Your task to perform on an android device: install app "Duolingo: language lessons" Image 0: 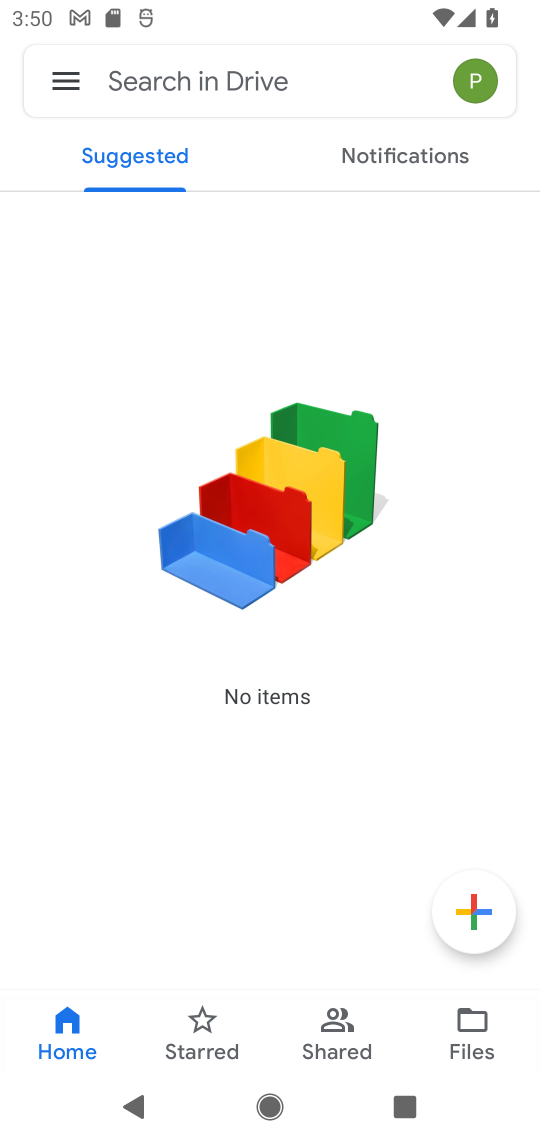
Step 0: press home button
Your task to perform on an android device: install app "Duolingo: language lessons" Image 1: 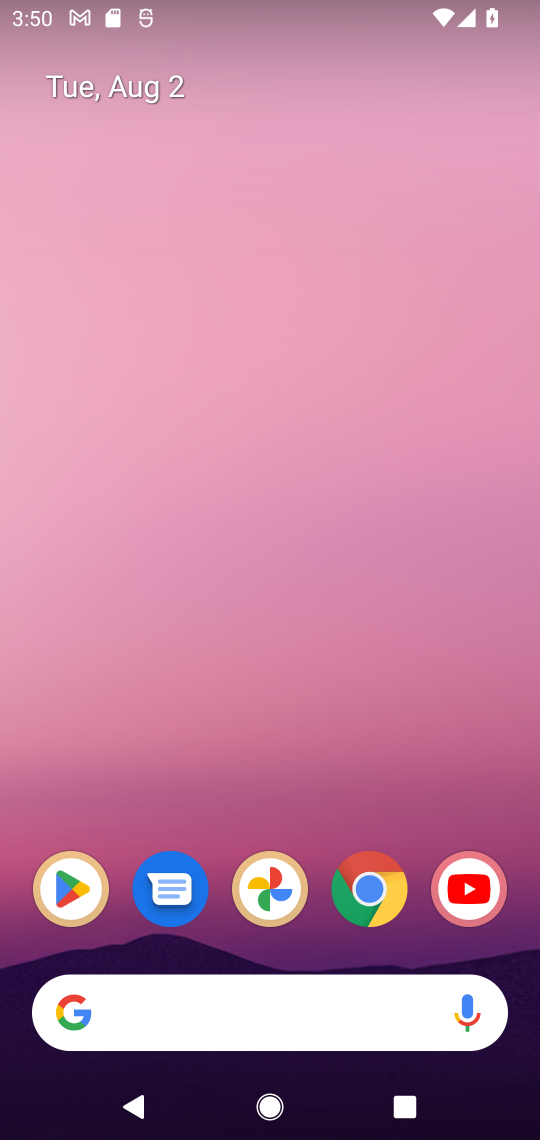
Step 1: drag from (403, 804) to (407, 73)
Your task to perform on an android device: install app "Duolingo: language lessons" Image 2: 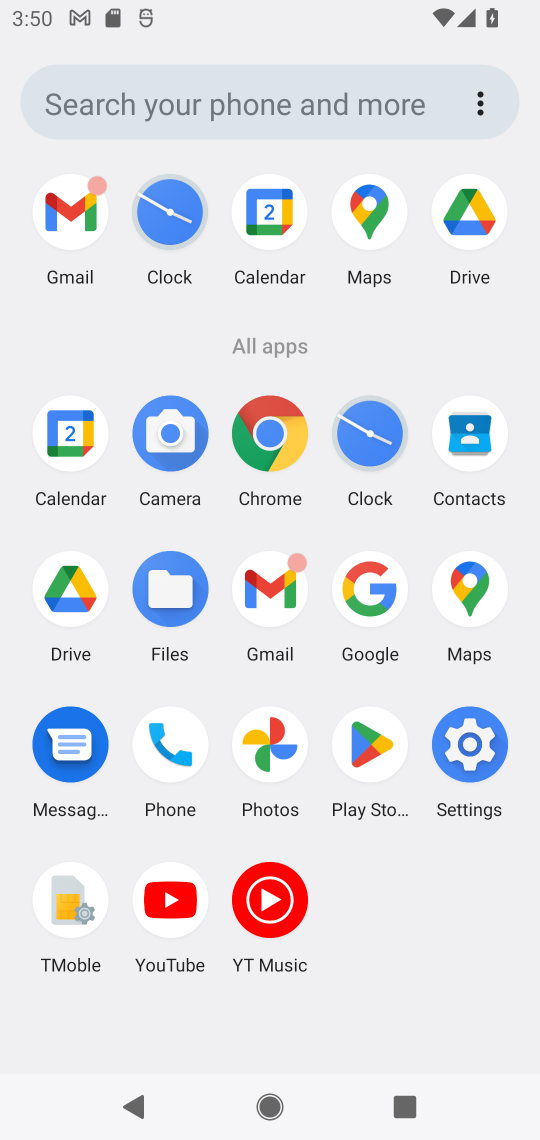
Step 2: click (357, 745)
Your task to perform on an android device: install app "Duolingo: language lessons" Image 3: 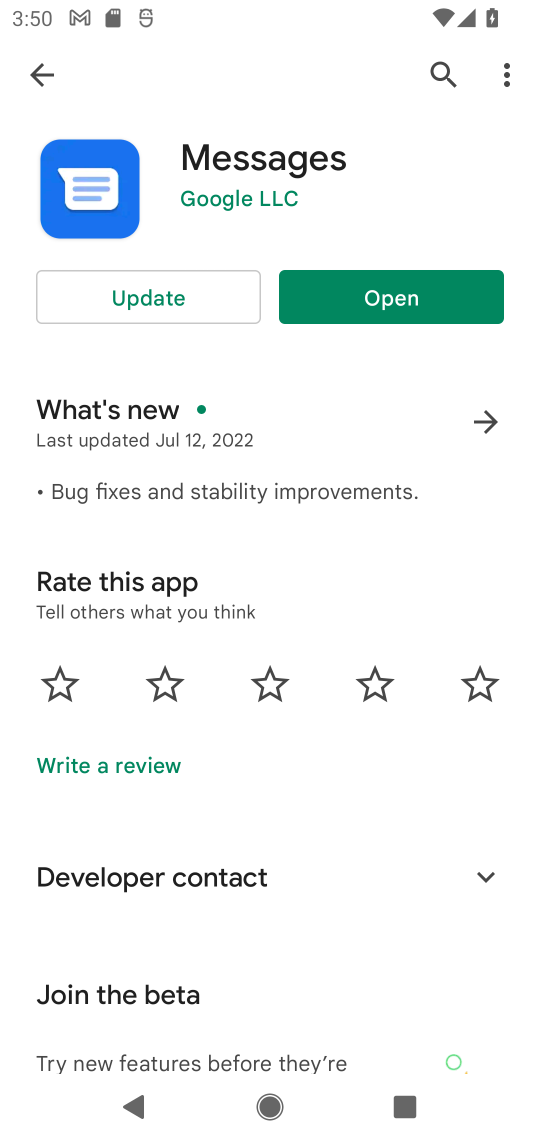
Step 3: click (440, 67)
Your task to perform on an android device: install app "Duolingo: language lessons" Image 4: 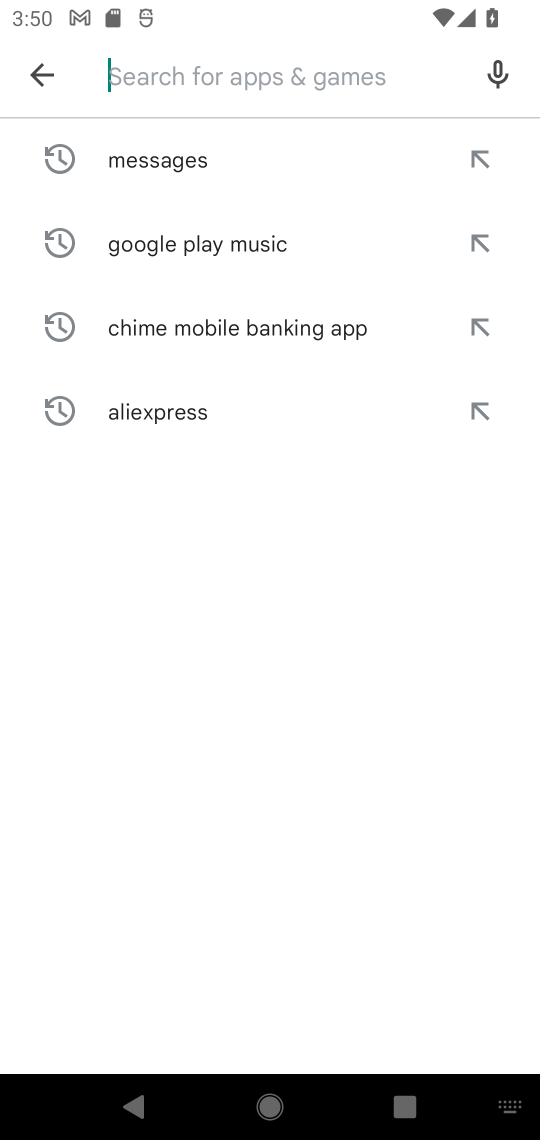
Step 4: press enter
Your task to perform on an android device: install app "Duolingo: language lessons" Image 5: 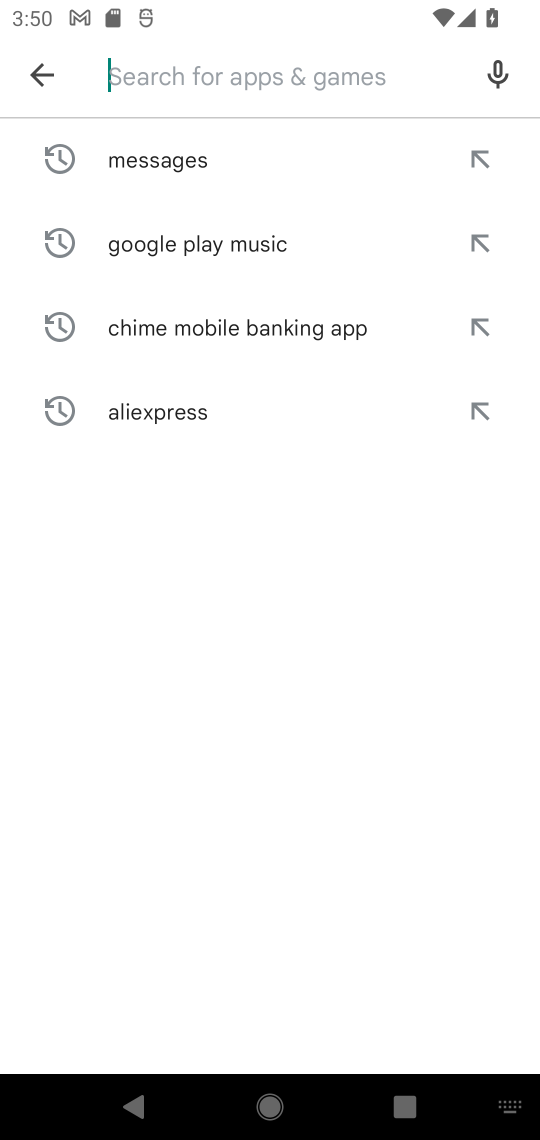
Step 5: type "Duolingo: language lessons"
Your task to perform on an android device: install app "Duolingo: language lessons" Image 6: 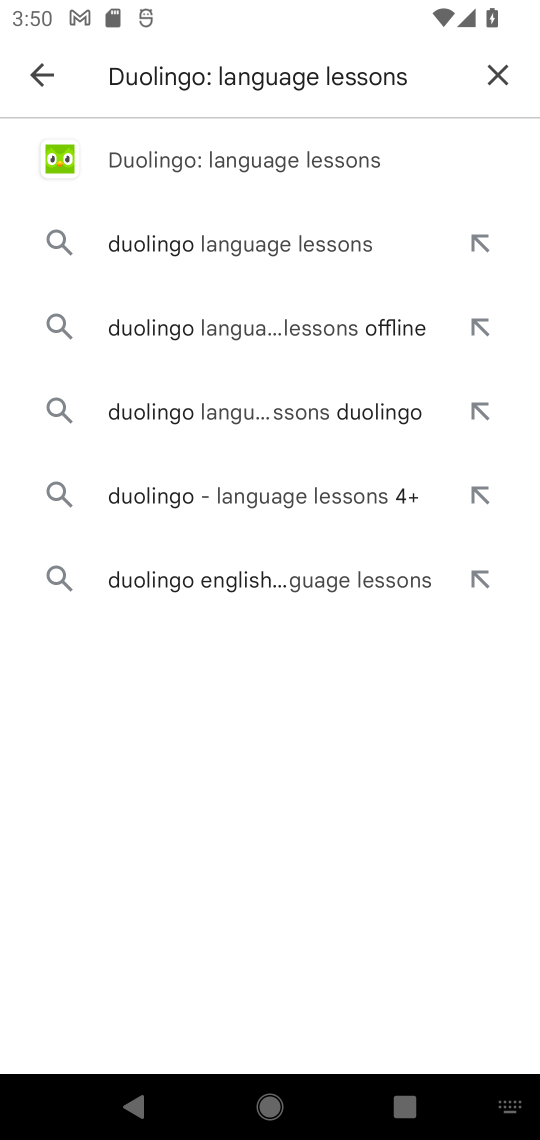
Step 6: click (306, 163)
Your task to perform on an android device: install app "Duolingo: language lessons" Image 7: 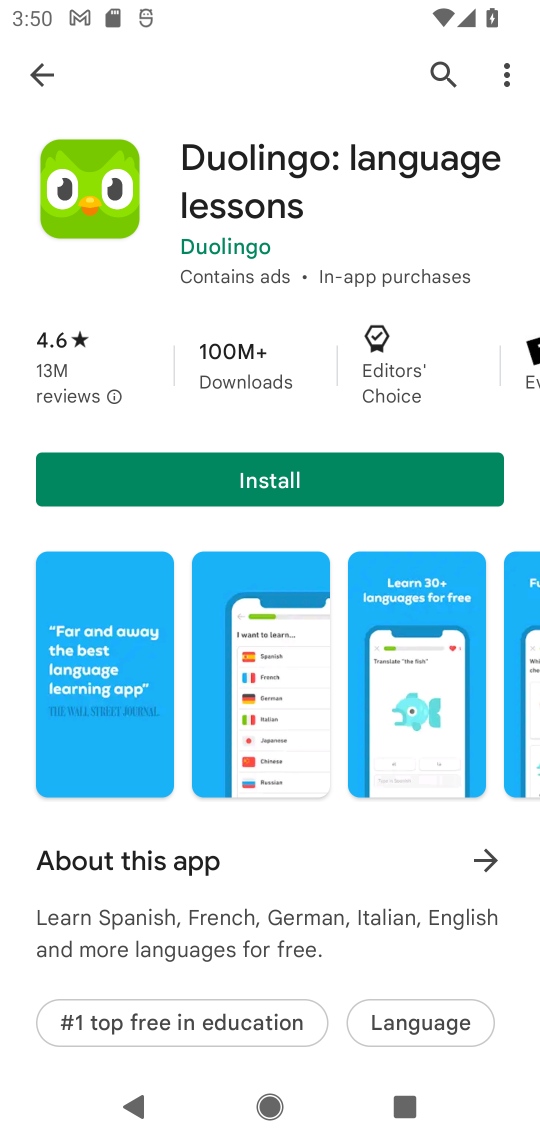
Step 7: click (326, 472)
Your task to perform on an android device: install app "Duolingo: language lessons" Image 8: 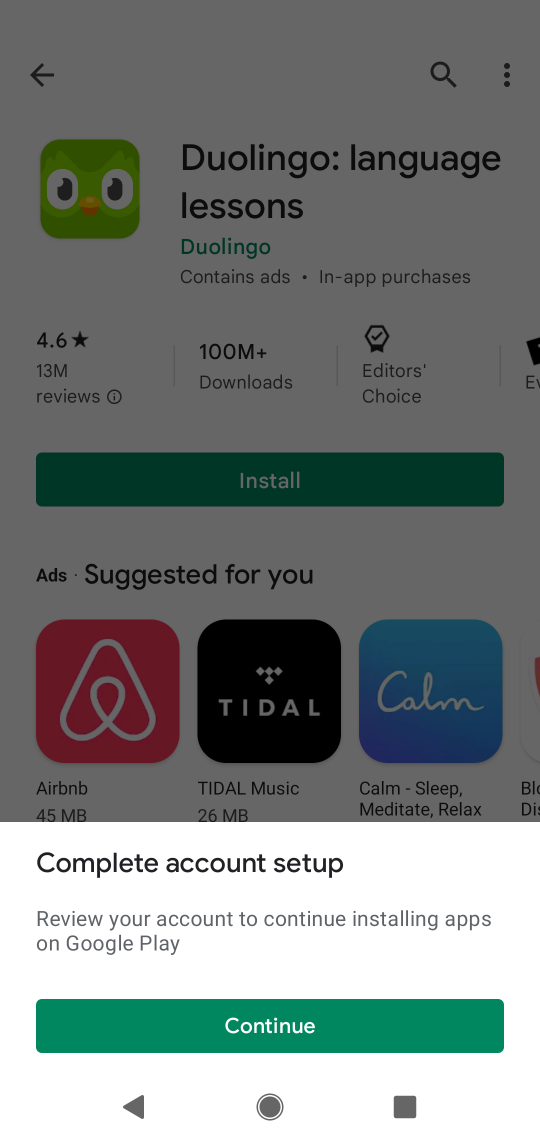
Step 8: click (339, 1028)
Your task to perform on an android device: install app "Duolingo: language lessons" Image 9: 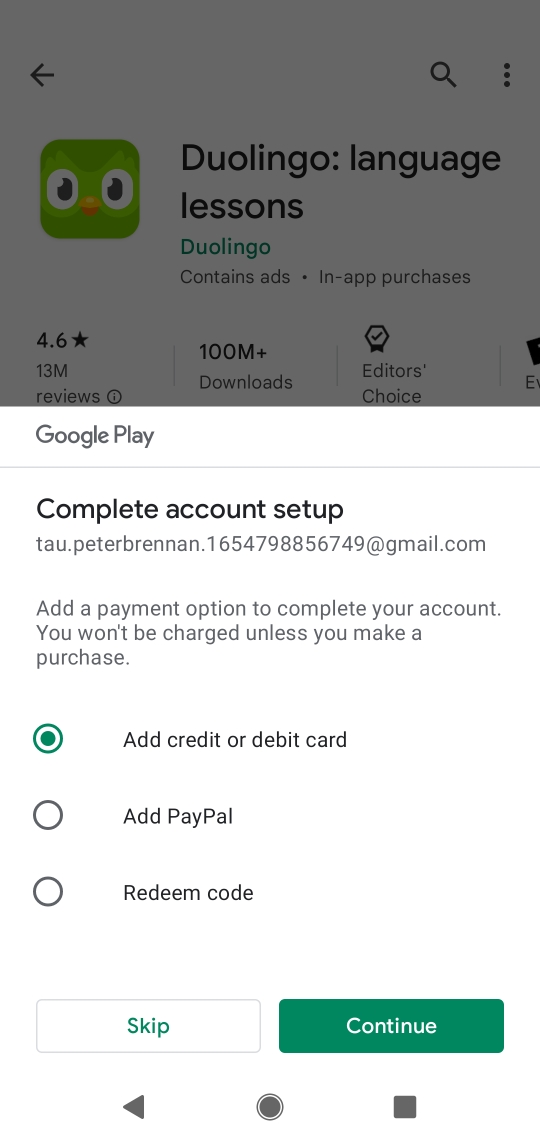
Step 9: click (118, 1028)
Your task to perform on an android device: install app "Duolingo: language lessons" Image 10: 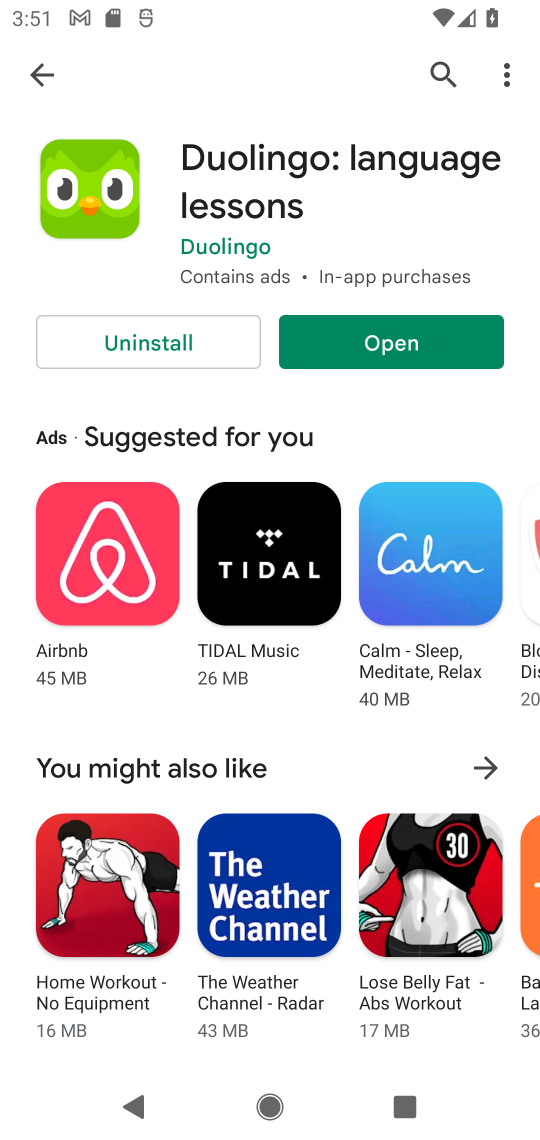
Step 10: task complete